Your task to perform on an android device: Go to Yahoo.com Image 0: 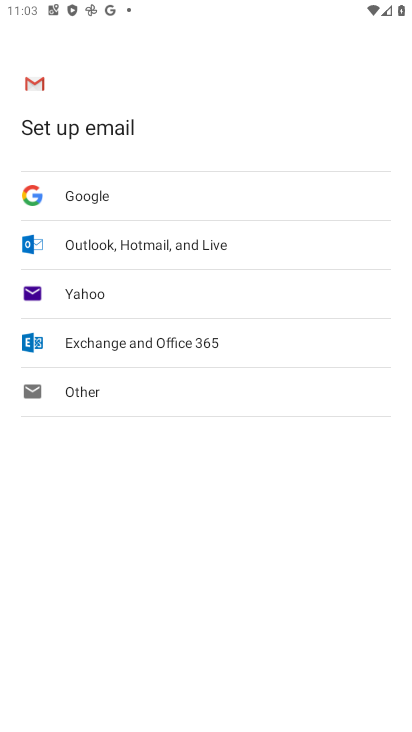
Step 0: press home button
Your task to perform on an android device: Go to Yahoo.com Image 1: 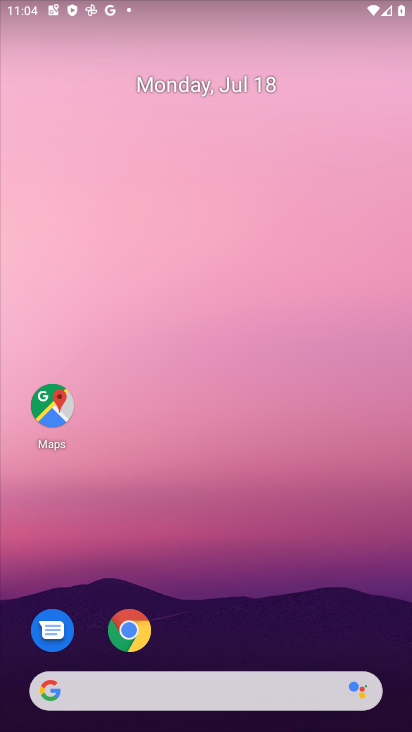
Step 1: drag from (354, 621) to (113, 1)
Your task to perform on an android device: Go to Yahoo.com Image 2: 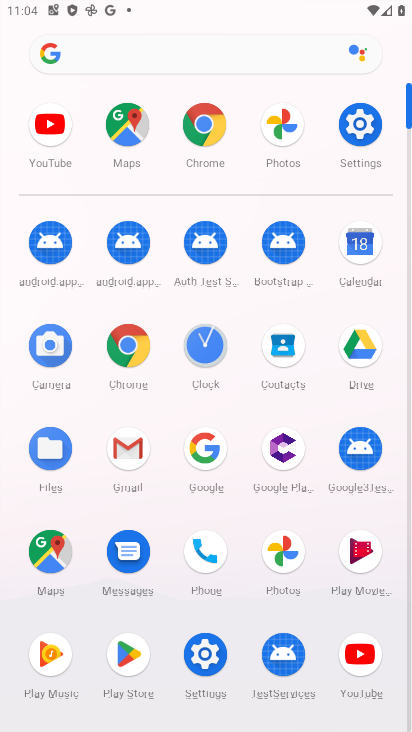
Step 2: click (203, 454)
Your task to perform on an android device: Go to Yahoo.com Image 3: 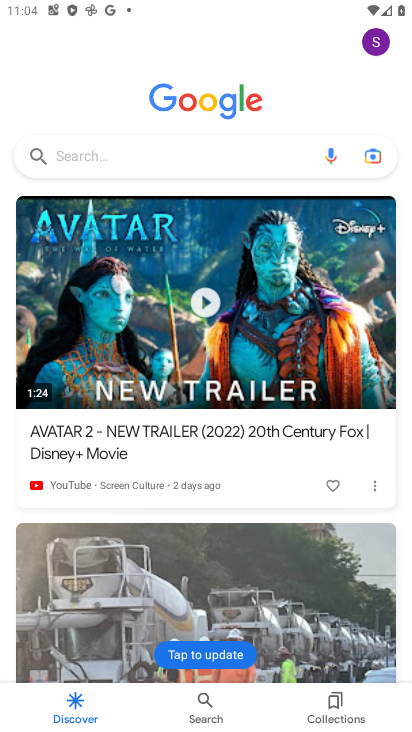
Step 3: click (64, 160)
Your task to perform on an android device: Go to Yahoo.com Image 4: 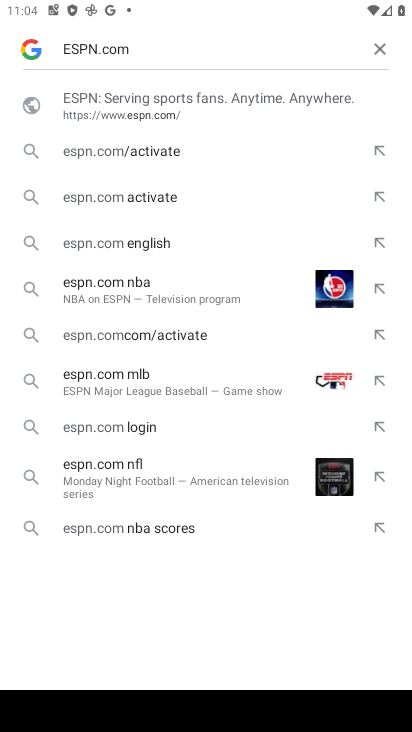
Step 4: click (377, 50)
Your task to perform on an android device: Go to Yahoo.com Image 5: 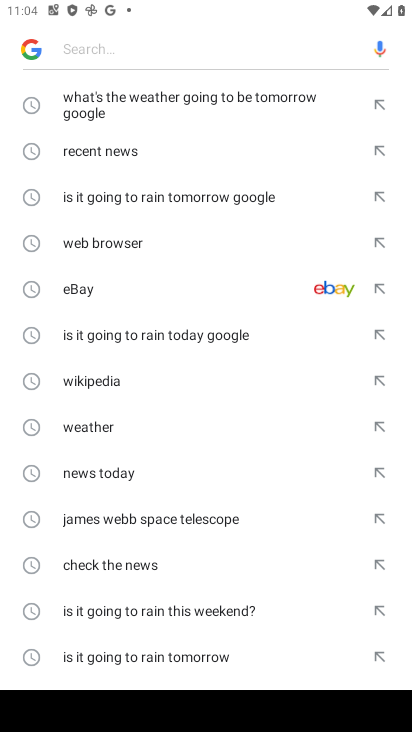
Step 5: drag from (135, 567) to (155, 125)
Your task to perform on an android device: Go to Yahoo.com Image 6: 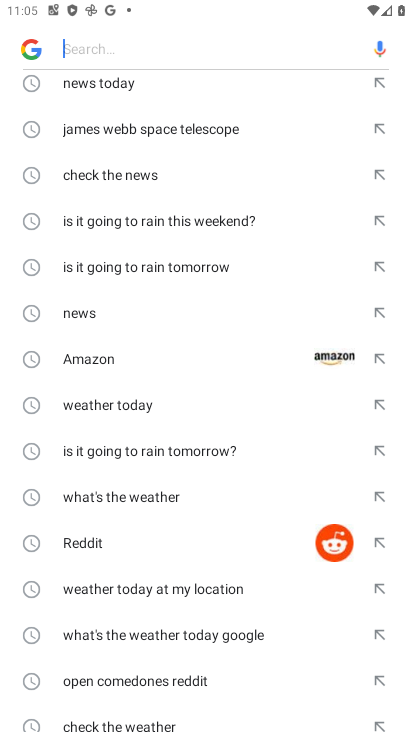
Step 6: type "Yahoo.com"
Your task to perform on an android device: Go to Yahoo.com Image 7: 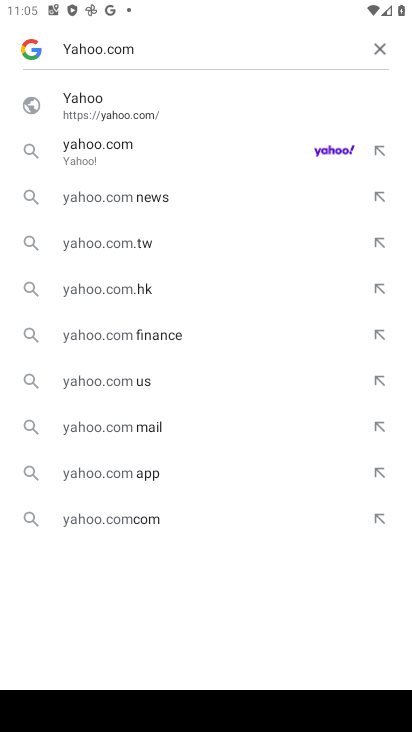
Step 7: click (85, 149)
Your task to perform on an android device: Go to Yahoo.com Image 8: 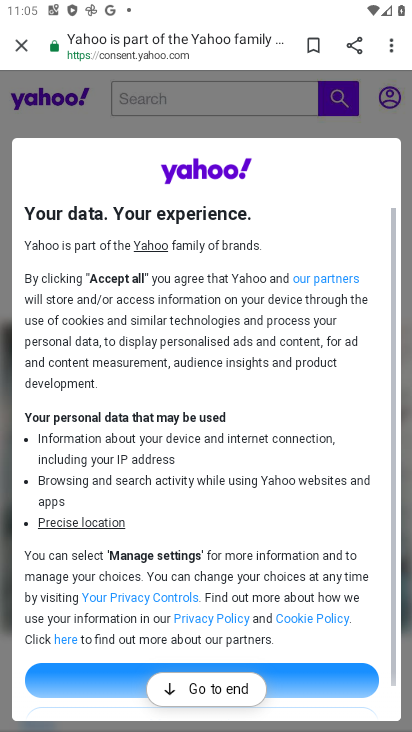
Step 8: task complete